Your task to perform on an android device: change notifications settings Image 0: 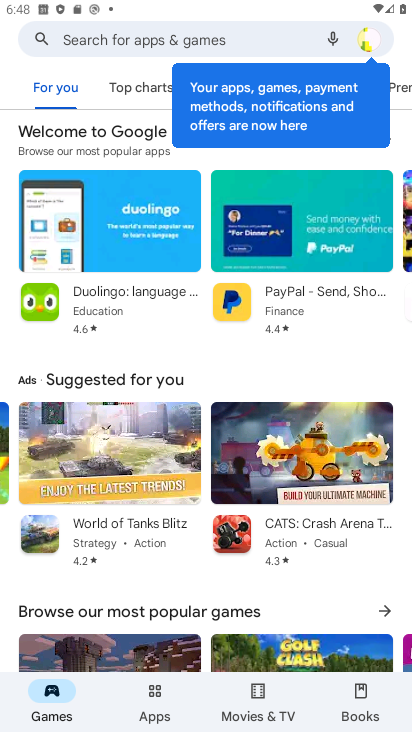
Step 0: press home button
Your task to perform on an android device: change notifications settings Image 1: 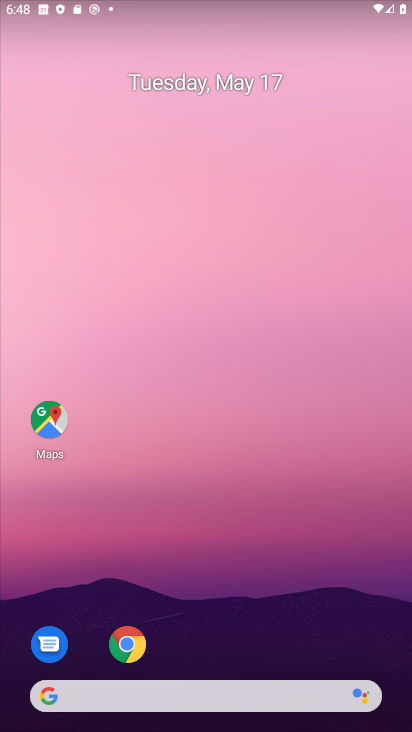
Step 1: drag from (341, 623) to (333, 0)
Your task to perform on an android device: change notifications settings Image 2: 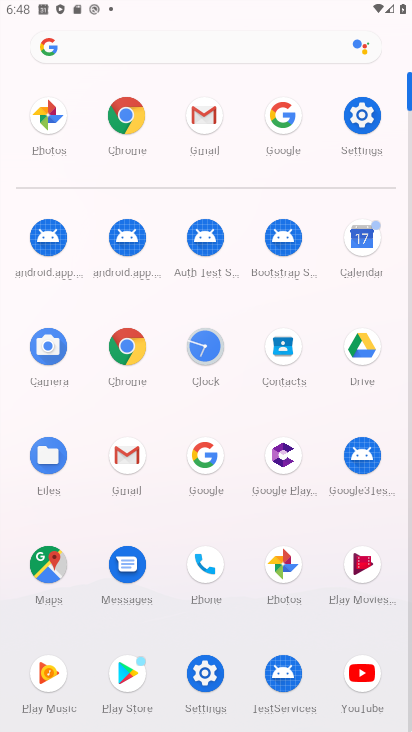
Step 2: click (367, 95)
Your task to perform on an android device: change notifications settings Image 3: 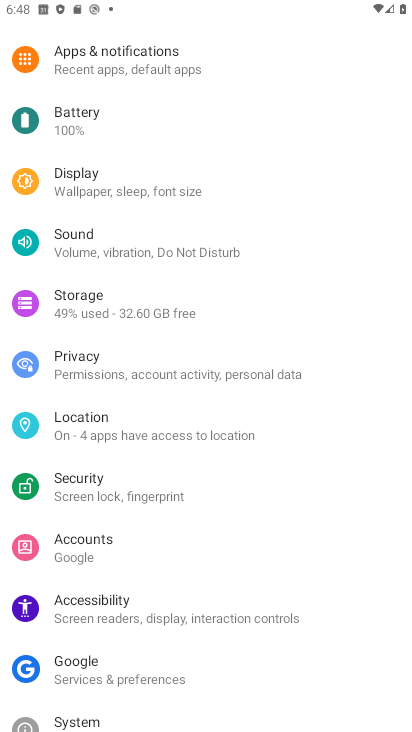
Step 3: drag from (271, 163) to (330, 513)
Your task to perform on an android device: change notifications settings Image 4: 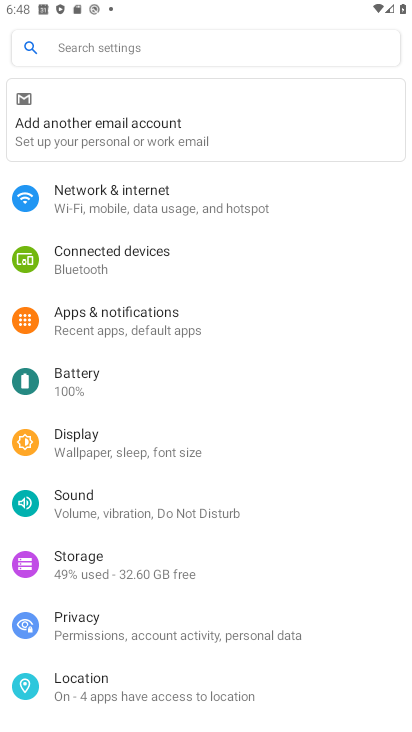
Step 4: click (207, 322)
Your task to perform on an android device: change notifications settings Image 5: 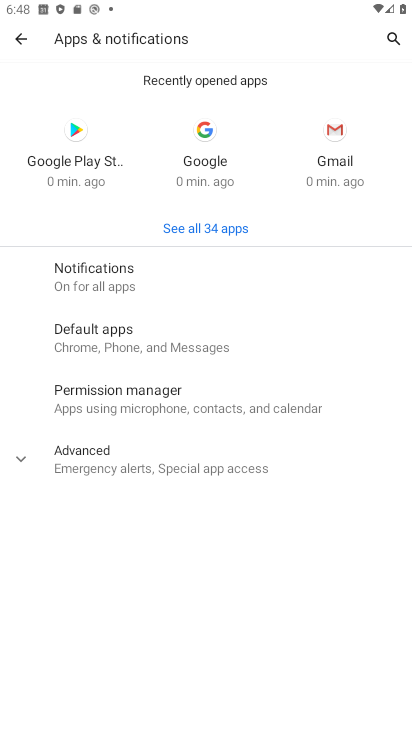
Step 5: click (194, 293)
Your task to perform on an android device: change notifications settings Image 6: 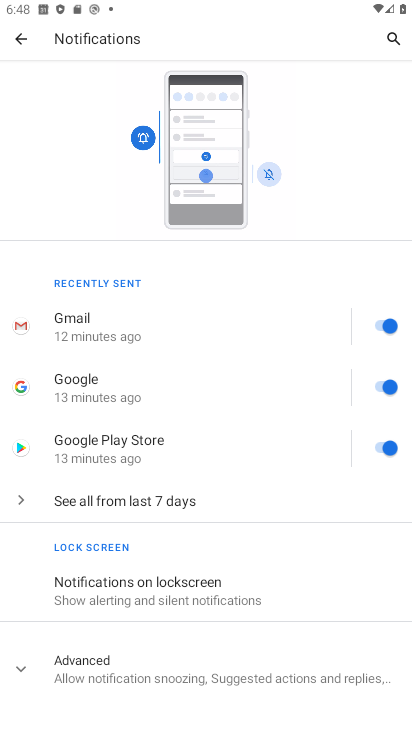
Step 6: task complete